Your task to perform on an android device: Open sound settings Image 0: 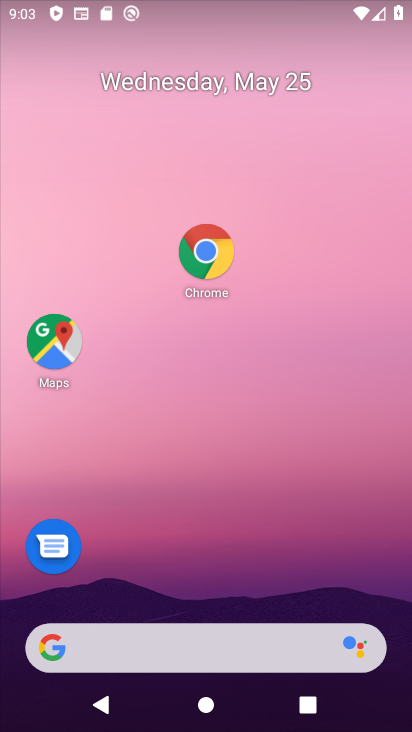
Step 0: drag from (255, 445) to (289, 161)
Your task to perform on an android device: Open sound settings Image 1: 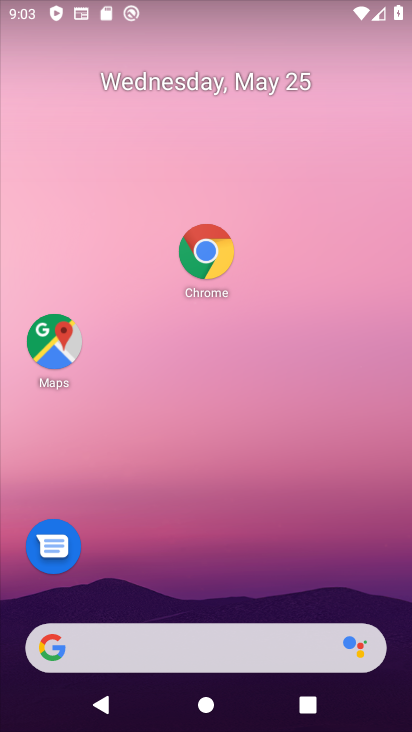
Step 1: drag from (207, 529) to (259, 131)
Your task to perform on an android device: Open sound settings Image 2: 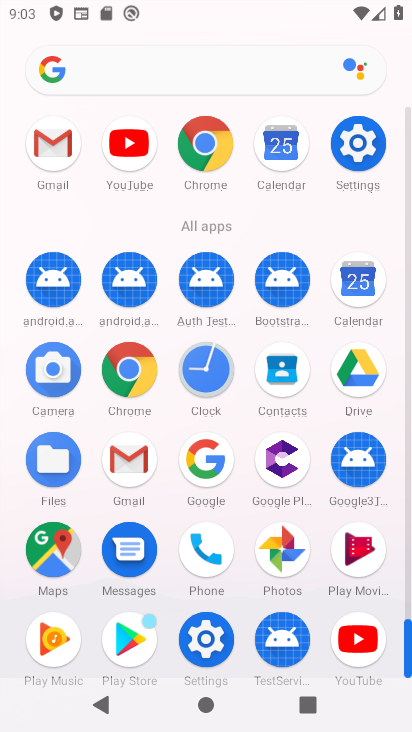
Step 2: click (347, 140)
Your task to perform on an android device: Open sound settings Image 3: 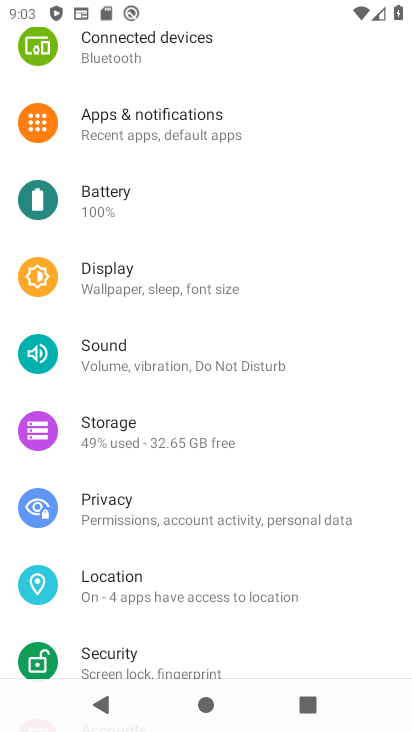
Step 3: click (150, 350)
Your task to perform on an android device: Open sound settings Image 4: 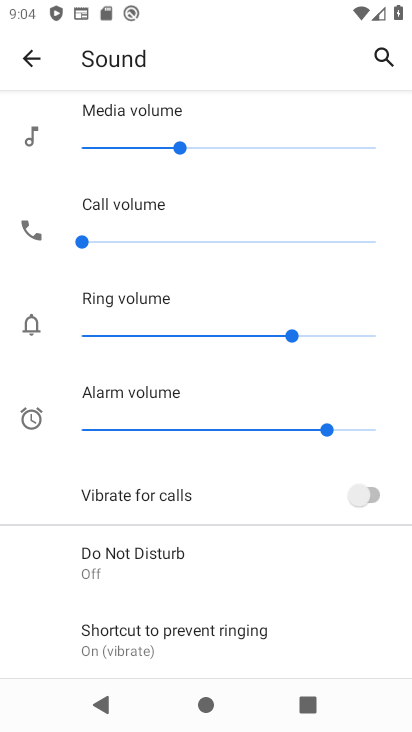
Step 4: task complete